Your task to perform on an android device: Open accessibility settings Image 0: 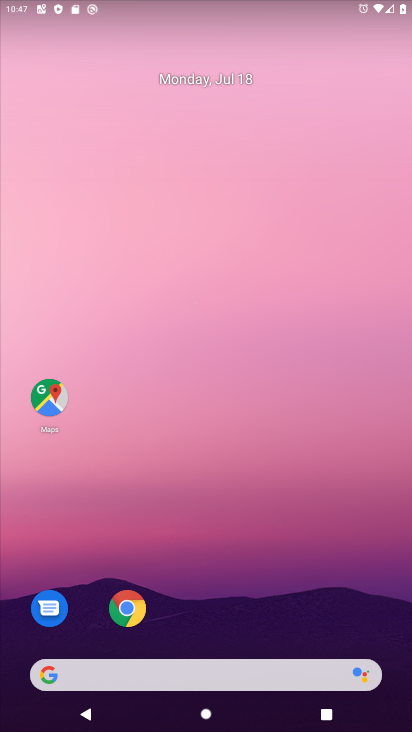
Step 0: drag from (207, 603) to (187, 298)
Your task to perform on an android device: Open accessibility settings Image 1: 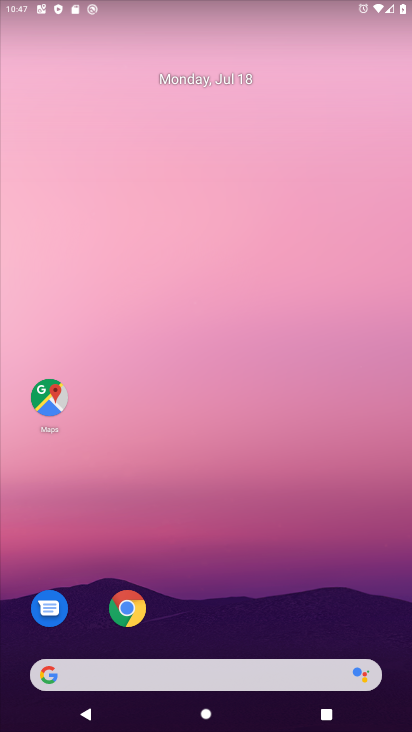
Step 1: drag from (183, 627) to (190, 298)
Your task to perform on an android device: Open accessibility settings Image 2: 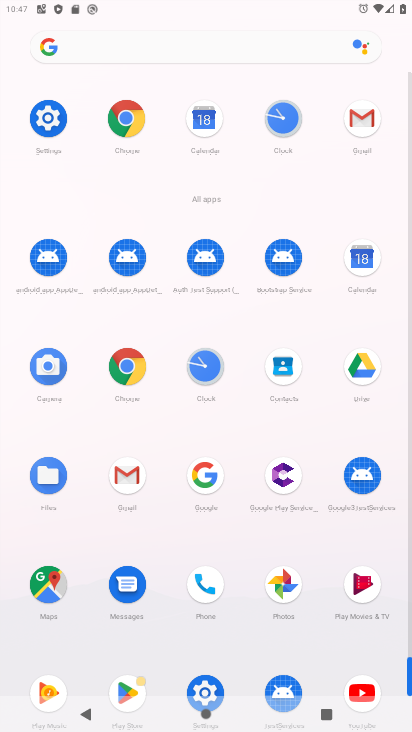
Step 2: drag from (160, 569) to (163, 437)
Your task to perform on an android device: Open accessibility settings Image 3: 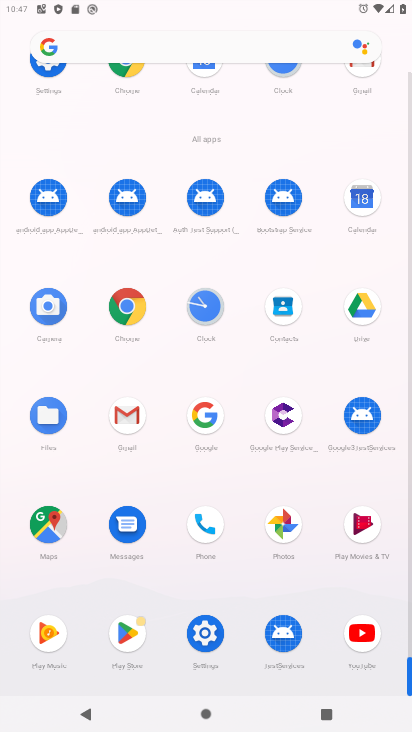
Step 3: click (200, 643)
Your task to perform on an android device: Open accessibility settings Image 4: 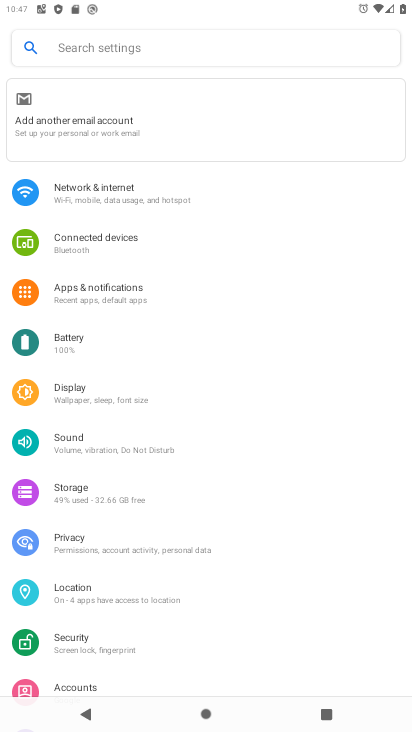
Step 4: drag from (98, 656) to (133, 422)
Your task to perform on an android device: Open accessibility settings Image 5: 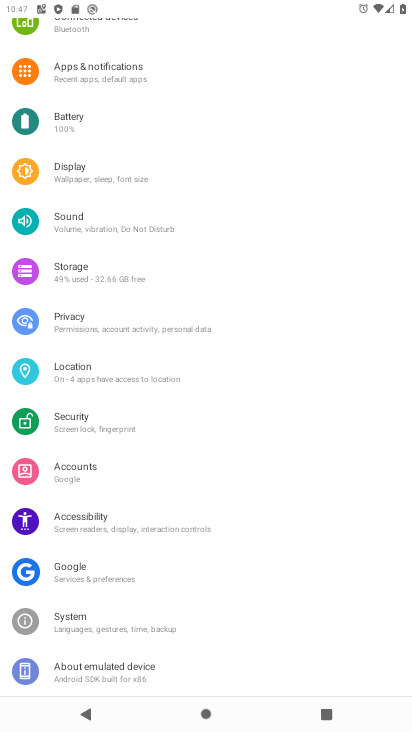
Step 5: click (96, 524)
Your task to perform on an android device: Open accessibility settings Image 6: 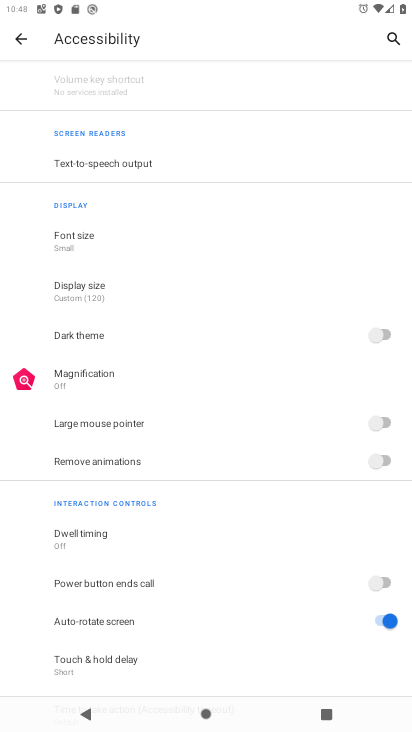
Step 6: task complete